Your task to perform on an android device: turn off javascript in the chrome app Image 0: 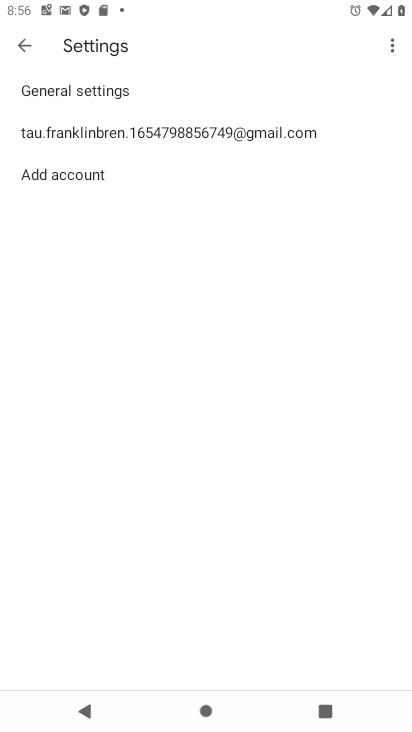
Step 0: press home button
Your task to perform on an android device: turn off javascript in the chrome app Image 1: 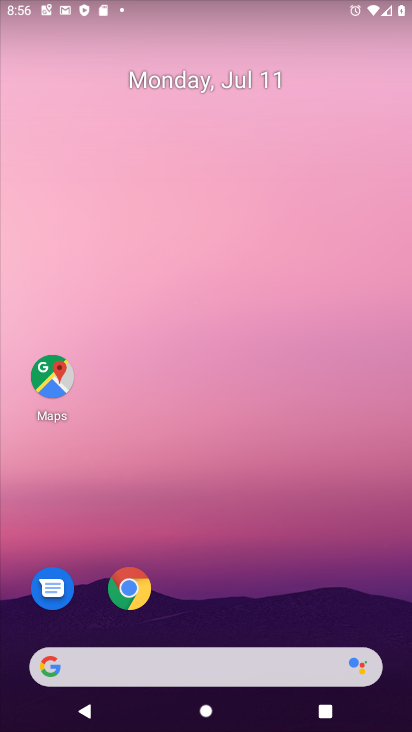
Step 1: click (131, 587)
Your task to perform on an android device: turn off javascript in the chrome app Image 2: 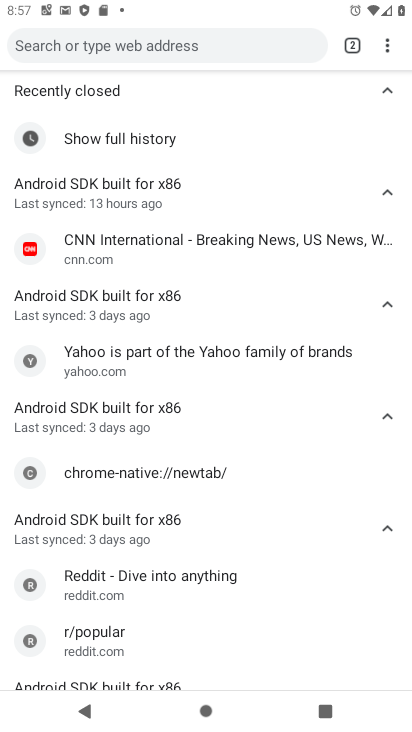
Step 2: drag from (388, 37) to (245, 433)
Your task to perform on an android device: turn off javascript in the chrome app Image 3: 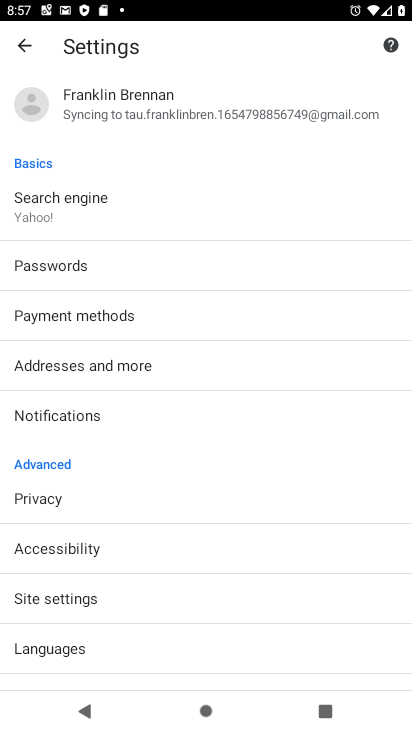
Step 3: click (70, 604)
Your task to perform on an android device: turn off javascript in the chrome app Image 4: 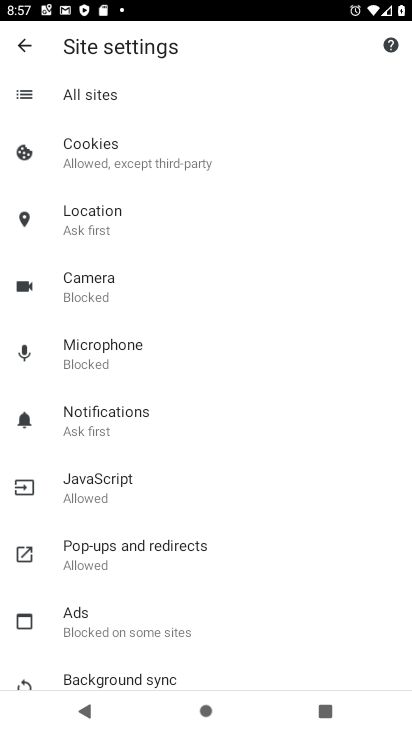
Step 4: click (110, 482)
Your task to perform on an android device: turn off javascript in the chrome app Image 5: 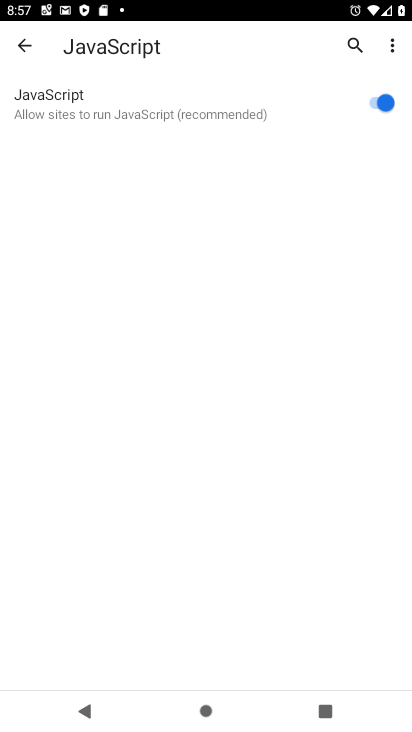
Step 5: click (371, 107)
Your task to perform on an android device: turn off javascript in the chrome app Image 6: 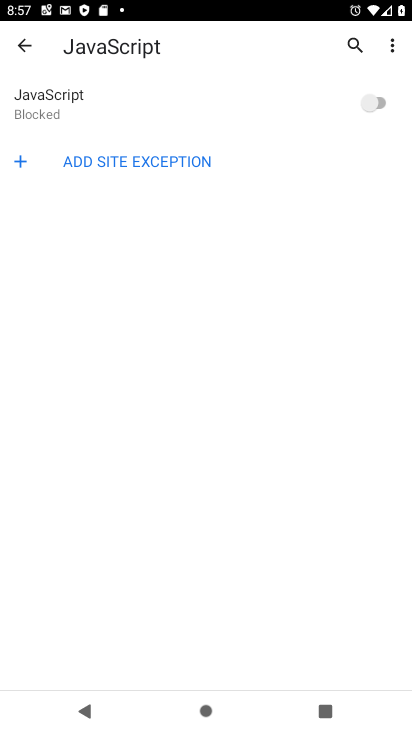
Step 6: task complete